Your task to perform on an android device: Turn off the flashlight Image 0: 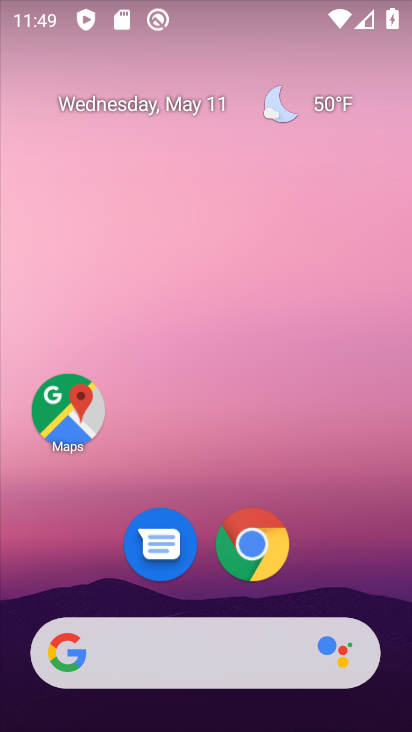
Step 0: drag from (188, 7) to (206, 248)
Your task to perform on an android device: Turn off the flashlight Image 1: 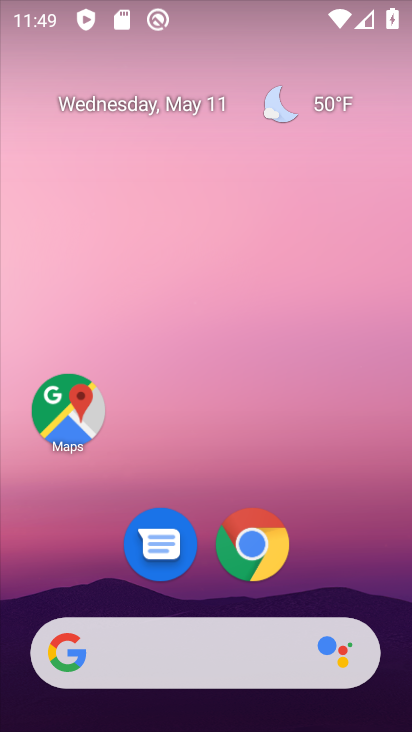
Step 1: task complete